Your task to perform on an android device: Go to Yahoo.com Image 0: 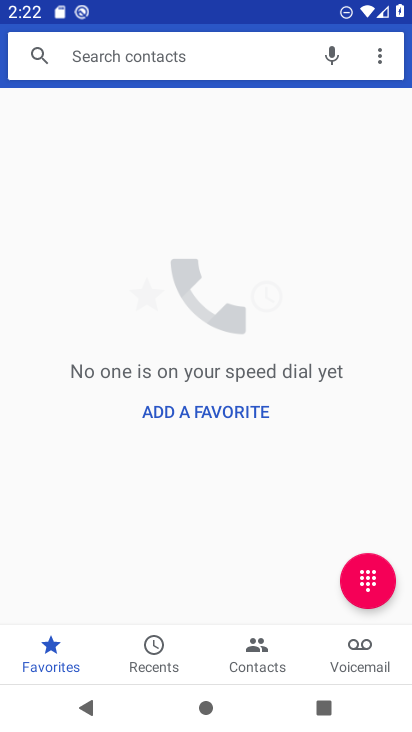
Step 0: press home button
Your task to perform on an android device: Go to Yahoo.com Image 1: 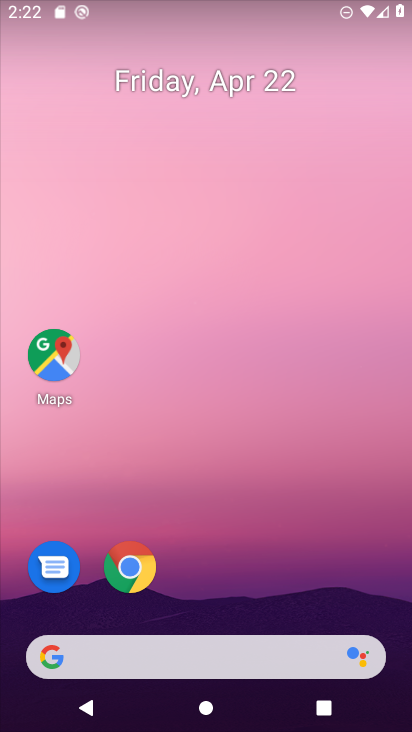
Step 1: click (121, 553)
Your task to perform on an android device: Go to Yahoo.com Image 2: 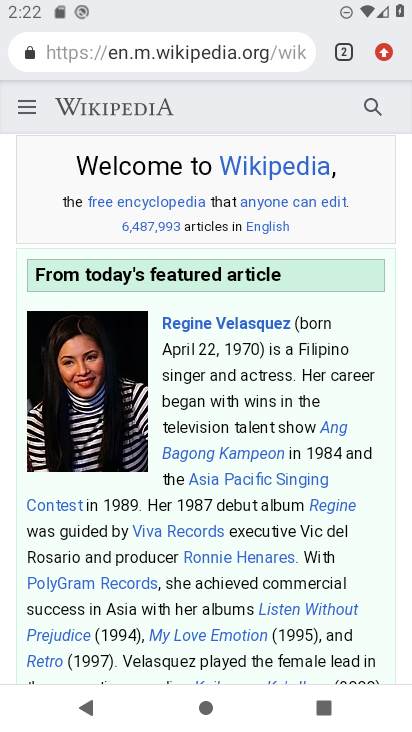
Step 2: click (342, 53)
Your task to perform on an android device: Go to Yahoo.com Image 3: 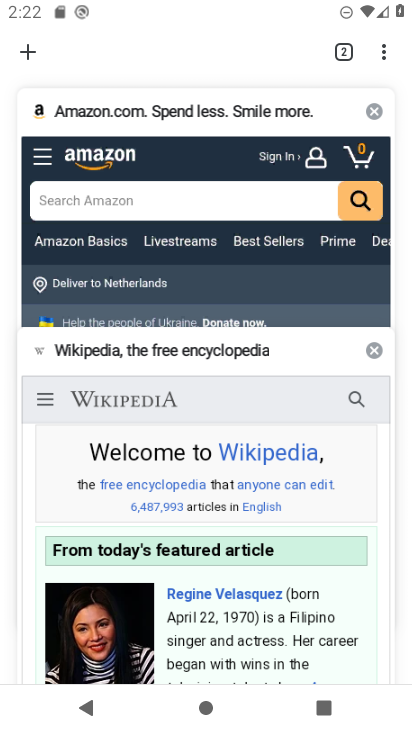
Step 3: click (28, 51)
Your task to perform on an android device: Go to Yahoo.com Image 4: 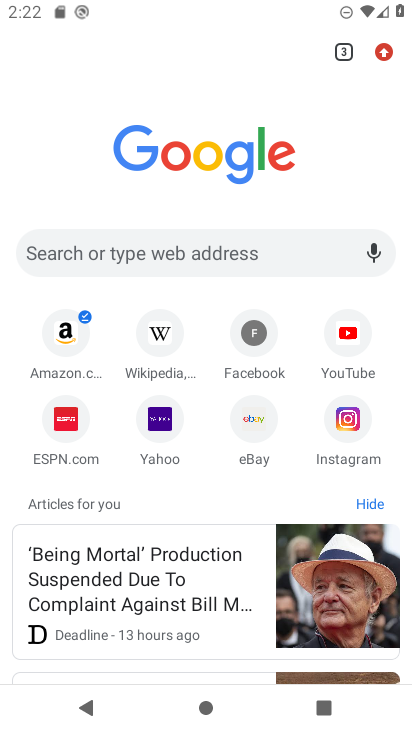
Step 4: click (163, 423)
Your task to perform on an android device: Go to Yahoo.com Image 5: 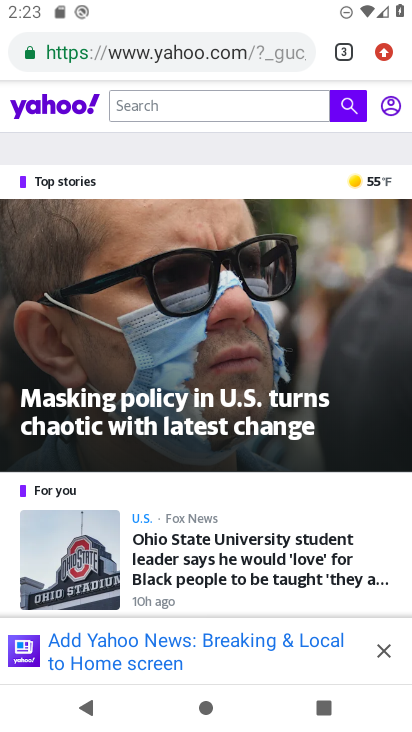
Step 5: task complete